Your task to perform on an android device: When is my next appointment? Image 0: 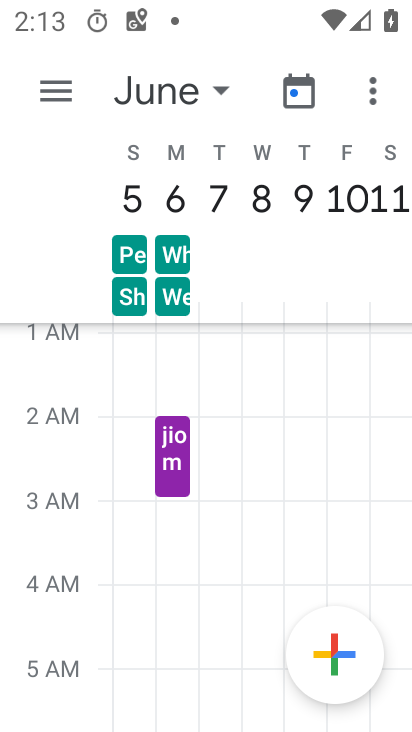
Step 0: press home button
Your task to perform on an android device: When is my next appointment? Image 1: 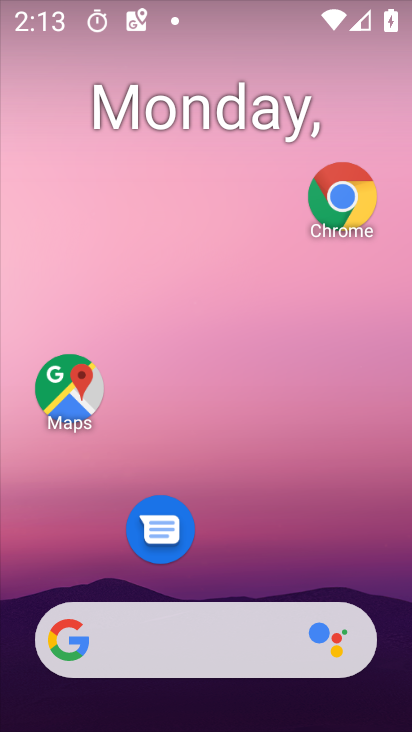
Step 1: drag from (245, 586) to (226, 3)
Your task to perform on an android device: When is my next appointment? Image 2: 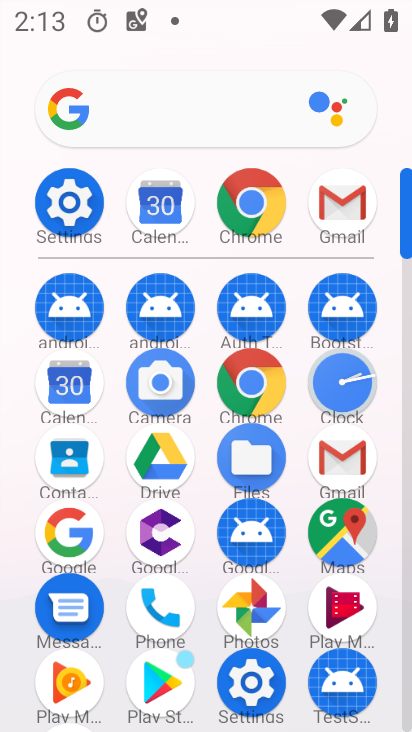
Step 2: click (51, 392)
Your task to perform on an android device: When is my next appointment? Image 3: 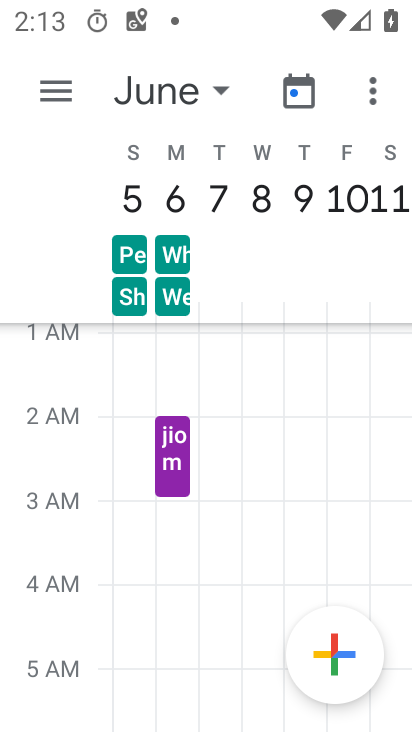
Step 3: task complete